Your task to perform on an android device: open the mobile data screen to see how much data has been used Image 0: 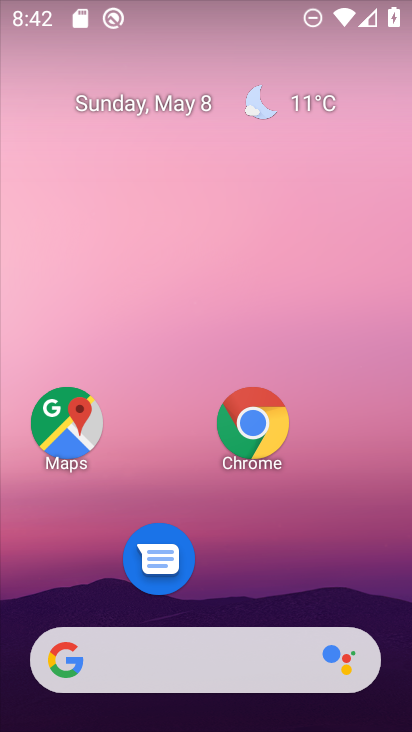
Step 0: drag from (378, 563) to (373, 0)
Your task to perform on an android device: open the mobile data screen to see how much data has been used Image 1: 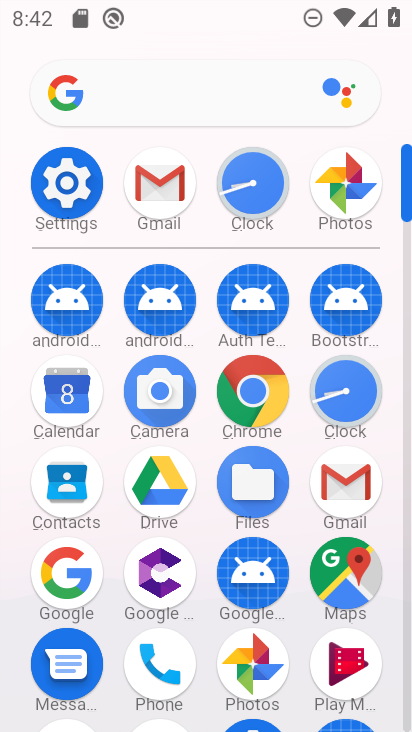
Step 1: click (64, 197)
Your task to perform on an android device: open the mobile data screen to see how much data has been used Image 2: 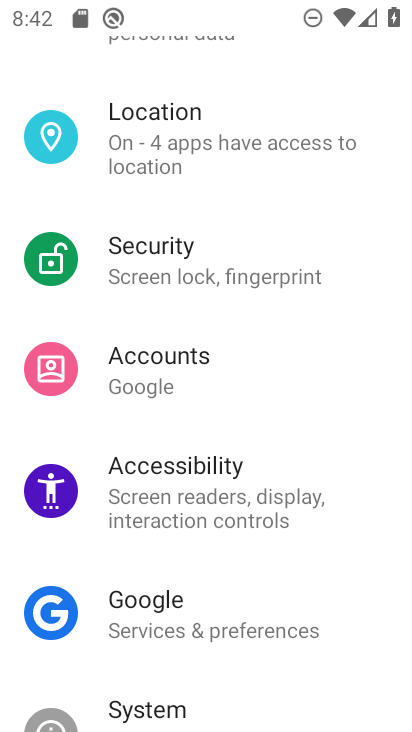
Step 2: drag from (388, 130) to (411, 251)
Your task to perform on an android device: open the mobile data screen to see how much data has been used Image 3: 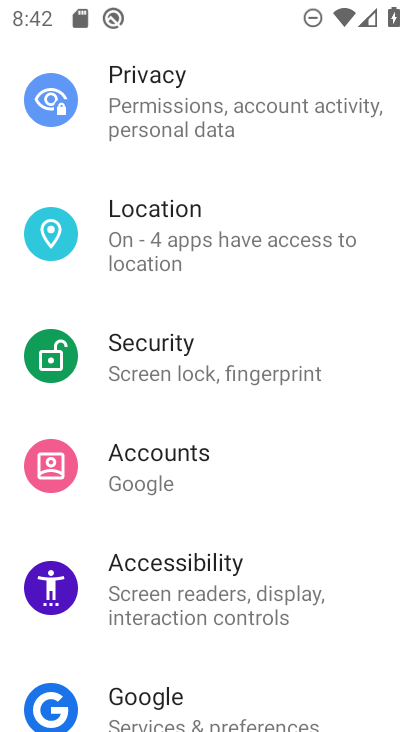
Step 3: drag from (399, 194) to (411, 560)
Your task to perform on an android device: open the mobile data screen to see how much data has been used Image 4: 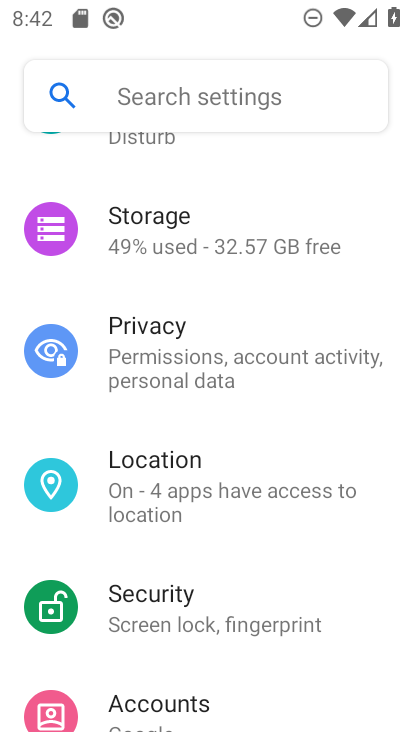
Step 4: drag from (386, 230) to (400, 588)
Your task to perform on an android device: open the mobile data screen to see how much data has been used Image 5: 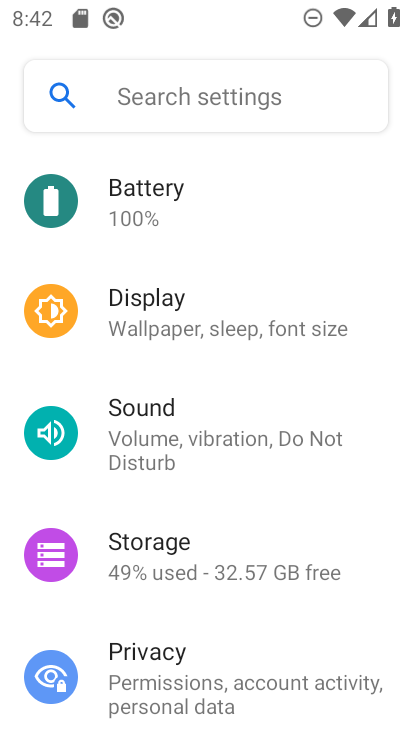
Step 5: drag from (361, 236) to (396, 588)
Your task to perform on an android device: open the mobile data screen to see how much data has been used Image 6: 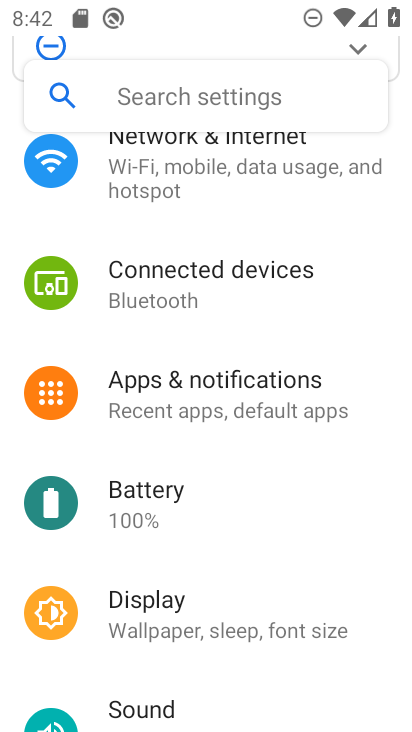
Step 6: click (187, 174)
Your task to perform on an android device: open the mobile data screen to see how much data has been used Image 7: 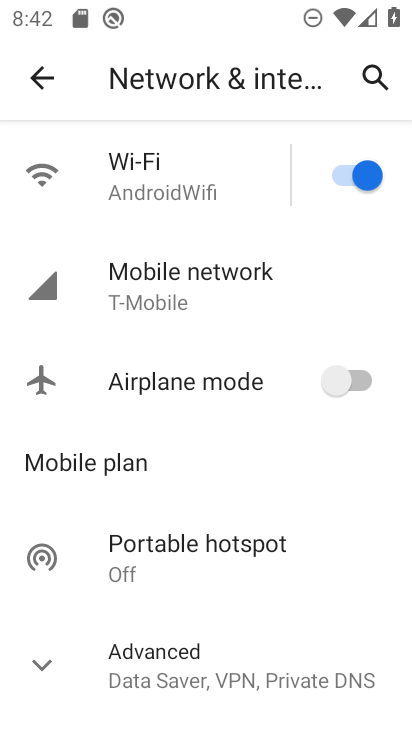
Step 7: click (159, 285)
Your task to perform on an android device: open the mobile data screen to see how much data has been used Image 8: 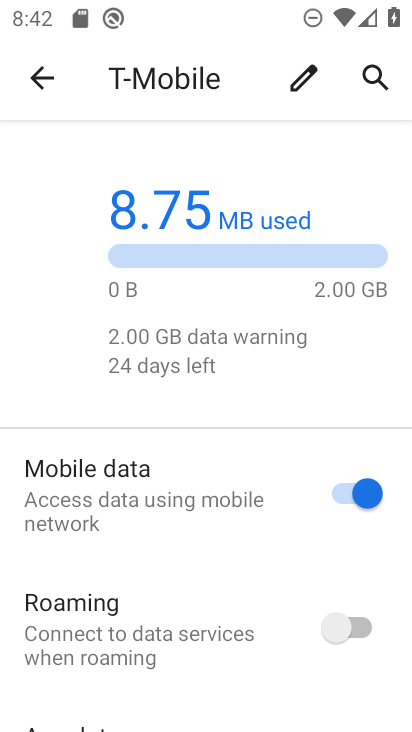
Step 8: drag from (183, 522) to (160, 150)
Your task to perform on an android device: open the mobile data screen to see how much data has been used Image 9: 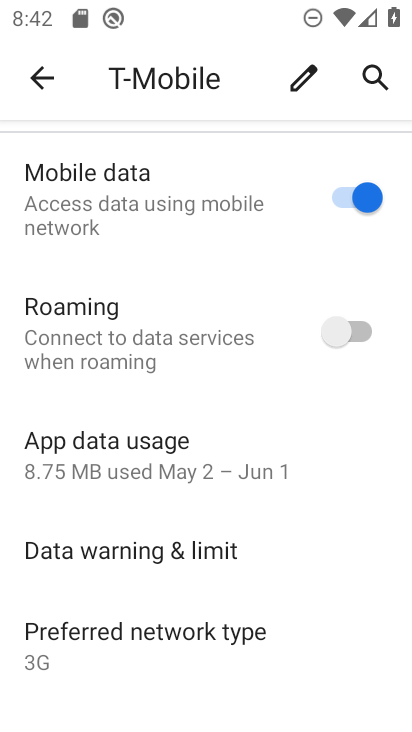
Step 9: click (147, 454)
Your task to perform on an android device: open the mobile data screen to see how much data has been used Image 10: 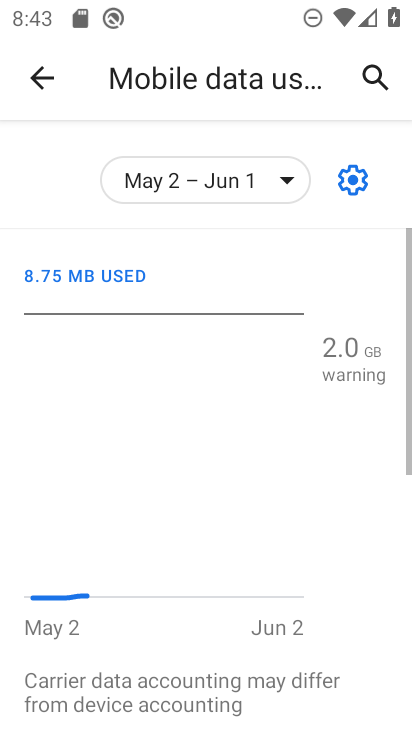
Step 10: task complete